Your task to perform on an android device: Go to wifi settings Image 0: 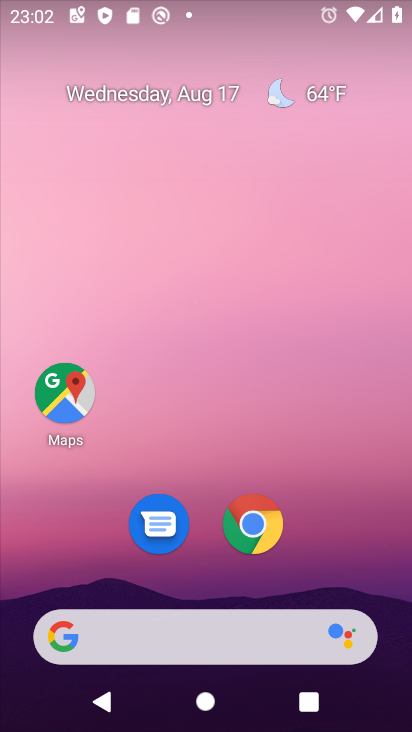
Step 0: drag from (273, 460) to (312, 2)
Your task to perform on an android device: Go to wifi settings Image 1: 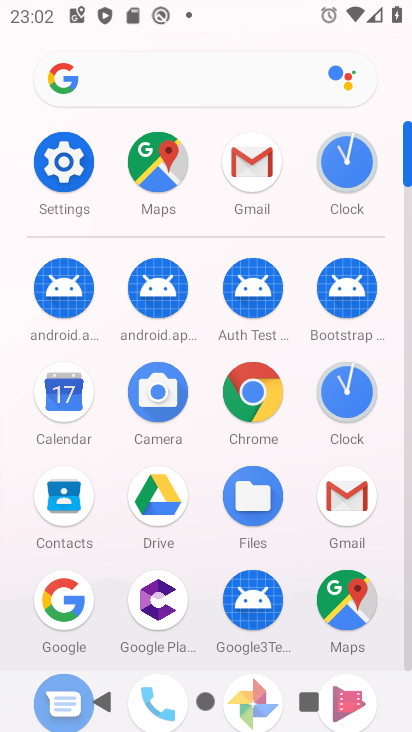
Step 1: drag from (198, 458) to (223, 0)
Your task to perform on an android device: Go to wifi settings Image 2: 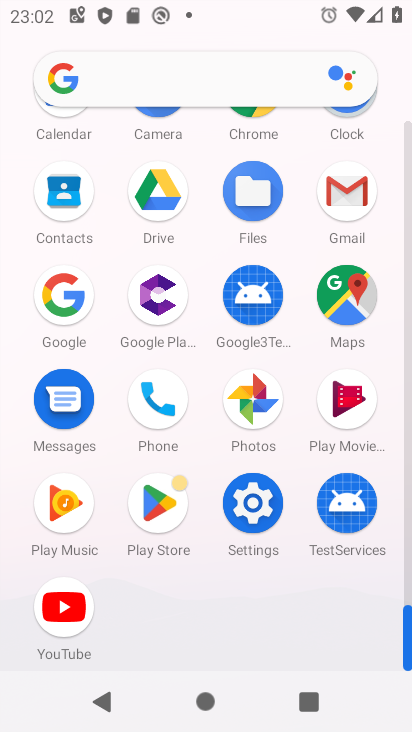
Step 2: click (252, 504)
Your task to perform on an android device: Go to wifi settings Image 3: 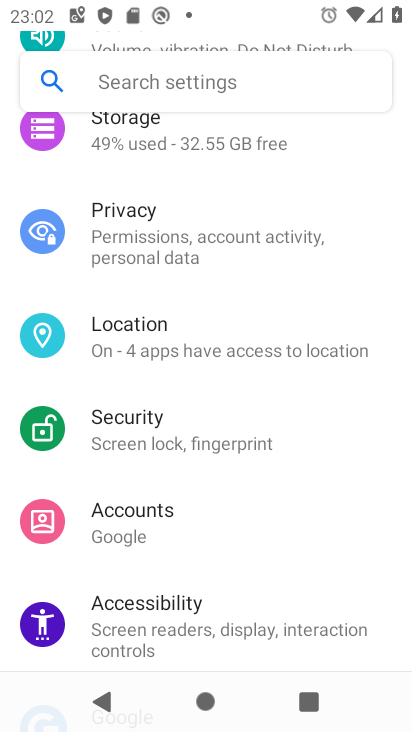
Step 3: drag from (247, 276) to (243, 604)
Your task to perform on an android device: Go to wifi settings Image 4: 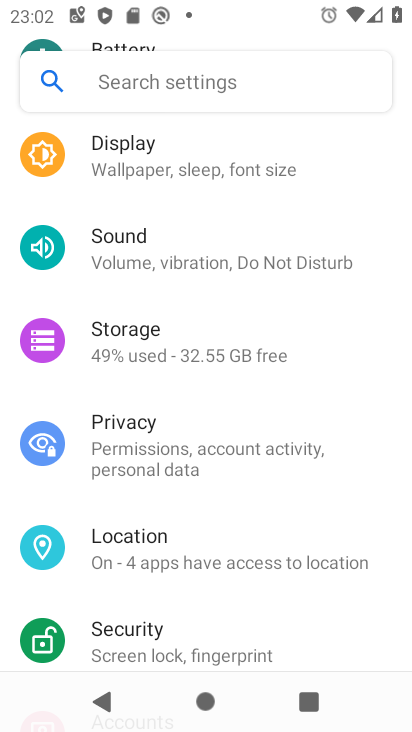
Step 4: drag from (239, 208) to (205, 660)
Your task to perform on an android device: Go to wifi settings Image 5: 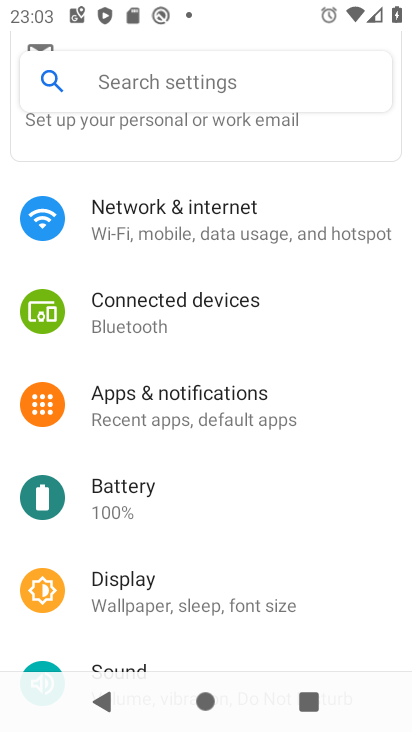
Step 5: click (228, 227)
Your task to perform on an android device: Go to wifi settings Image 6: 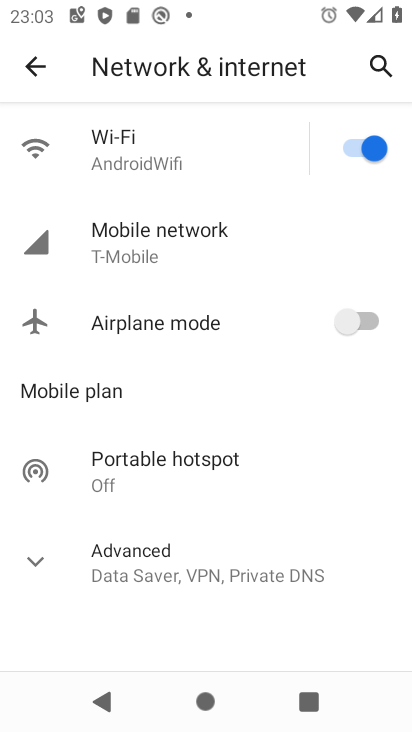
Step 6: click (158, 150)
Your task to perform on an android device: Go to wifi settings Image 7: 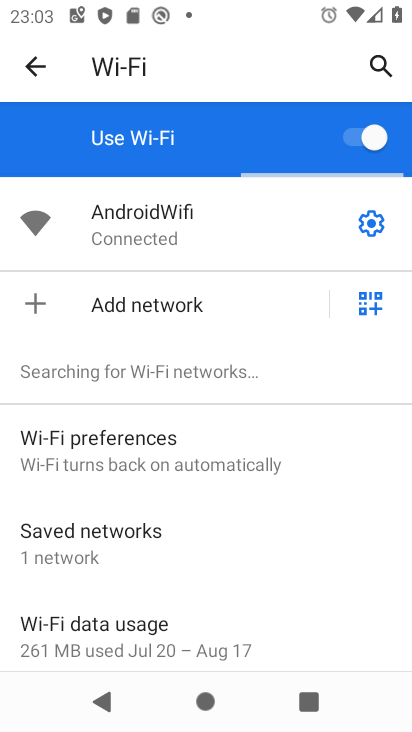
Step 7: task complete